Your task to perform on an android device: open the mobile data screen to see how much data has been used Image 0: 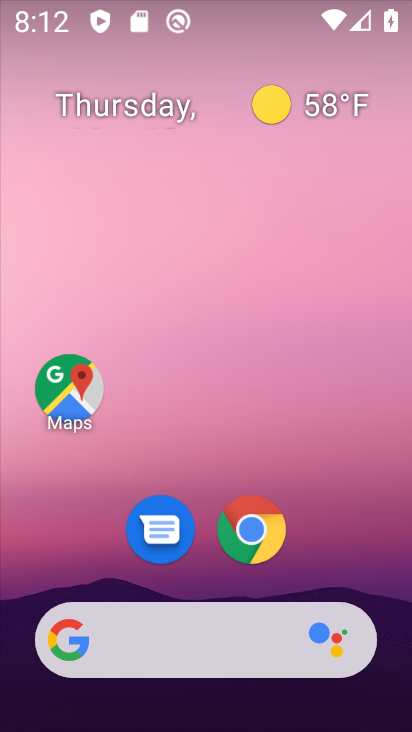
Step 0: drag from (211, 576) to (240, 81)
Your task to perform on an android device: open the mobile data screen to see how much data has been used Image 1: 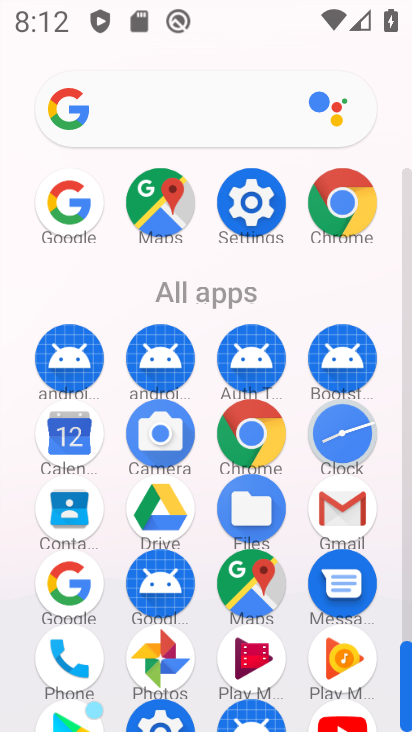
Step 1: click (254, 215)
Your task to perform on an android device: open the mobile data screen to see how much data has been used Image 2: 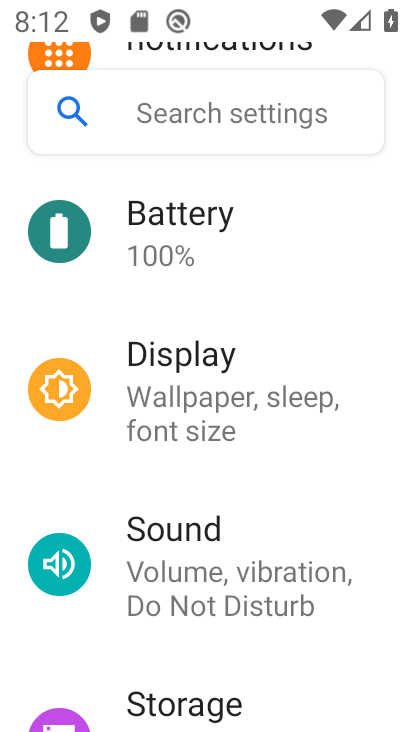
Step 2: drag from (251, 226) to (258, 668)
Your task to perform on an android device: open the mobile data screen to see how much data has been used Image 3: 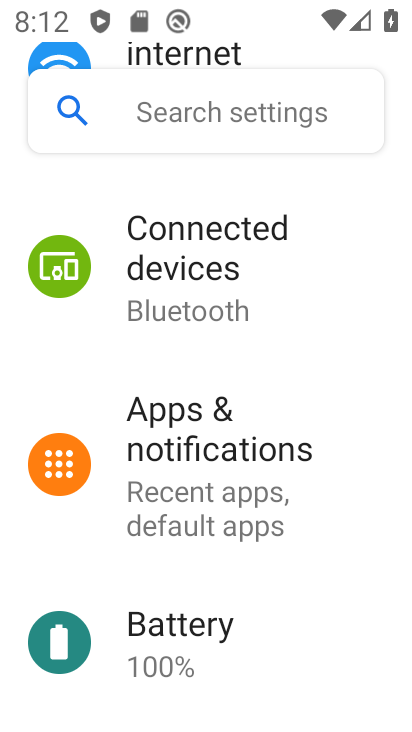
Step 3: drag from (199, 260) to (203, 669)
Your task to perform on an android device: open the mobile data screen to see how much data has been used Image 4: 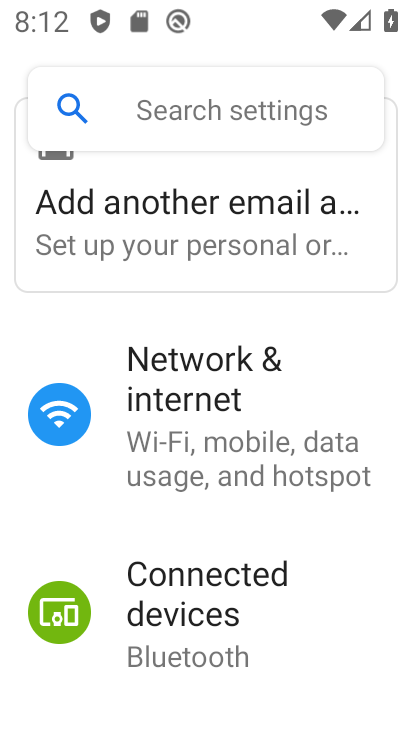
Step 4: click (196, 443)
Your task to perform on an android device: open the mobile data screen to see how much data has been used Image 5: 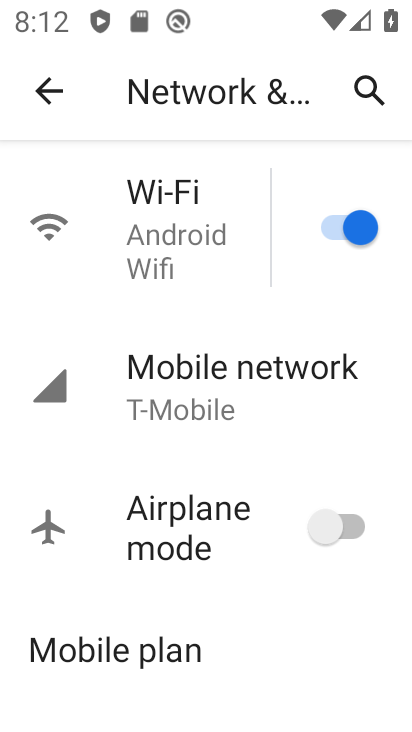
Step 5: click (183, 381)
Your task to perform on an android device: open the mobile data screen to see how much data has been used Image 6: 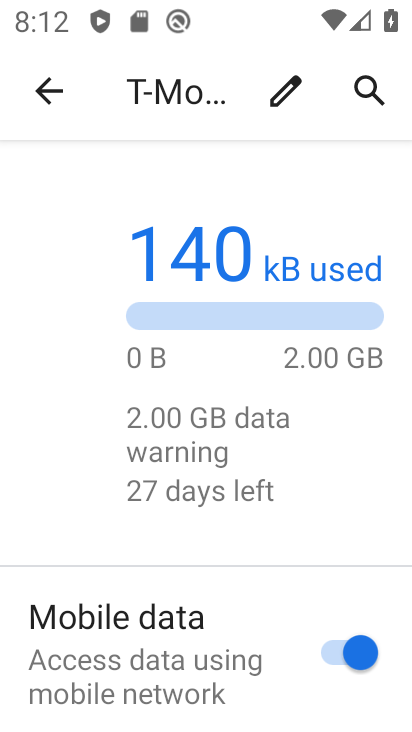
Step 6: task complete